Your task to perform on an android device: all mails in gmail Image 0: 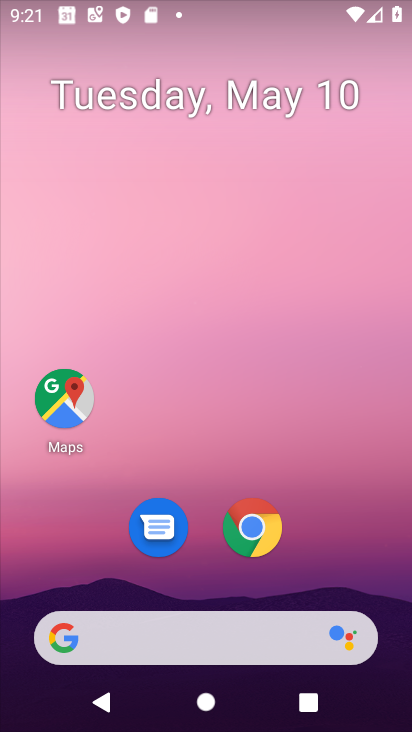
Step 0: drag from (369, 559) to (267, 140)
Your task to perform on an android device: all mails in gmail Image 1: 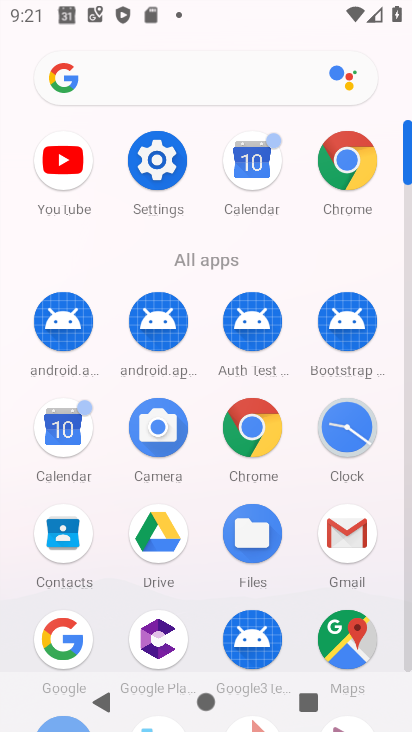
Step 1: click (359, 546)
Your task to perform on an android device: all mails in gmail Image 2: 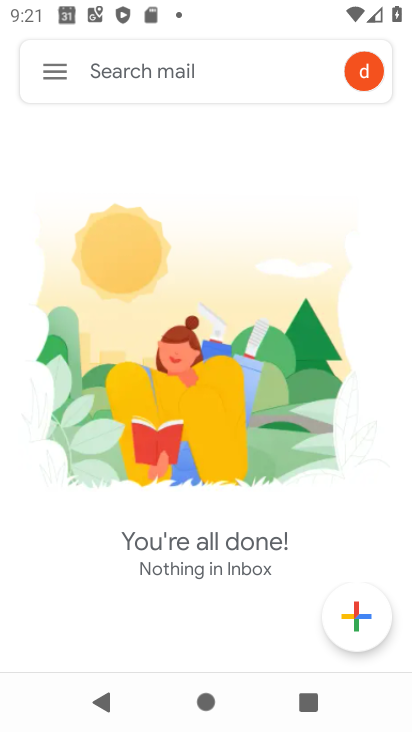
Step 2: click (50, 79)
Your task to perform on an android device: all mails in gmail Image 3: 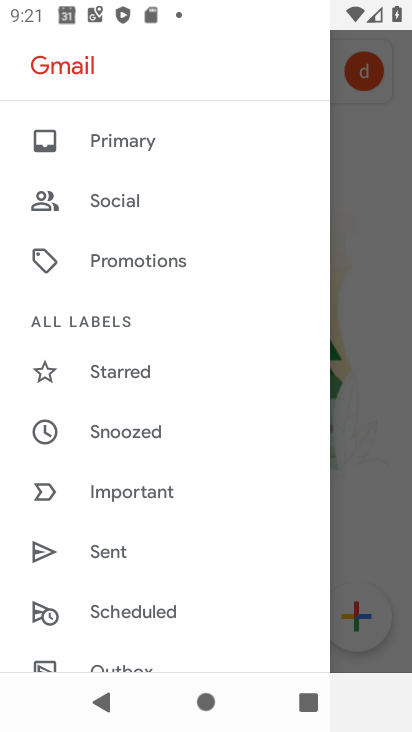
Step 3: drag from (94, 569) to (117, 330)
Your task to perform on an android device: all mails in gmail Image 4: 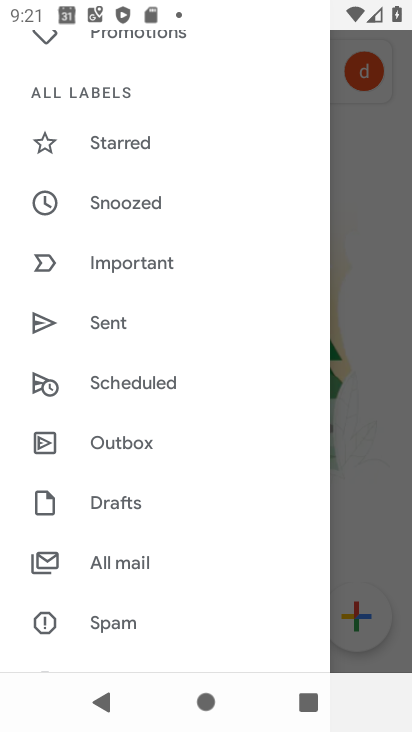
Step 4: click (107, 574)
Your task to perform on an android device: all mails in gmail Image 5: 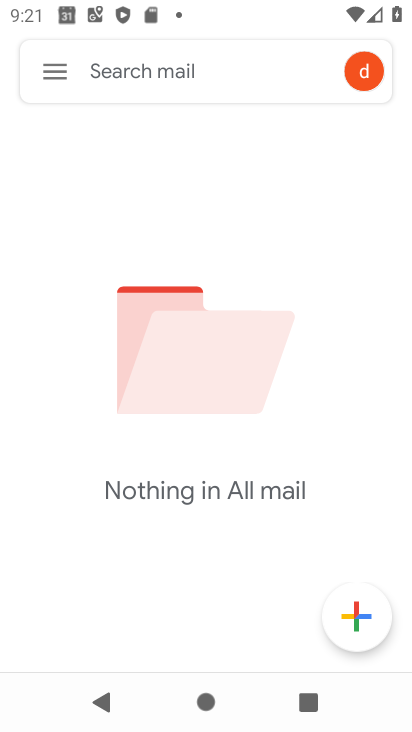
Step 5: task complete